Your task to perform on an android device: Go to CNN.com Image 0: 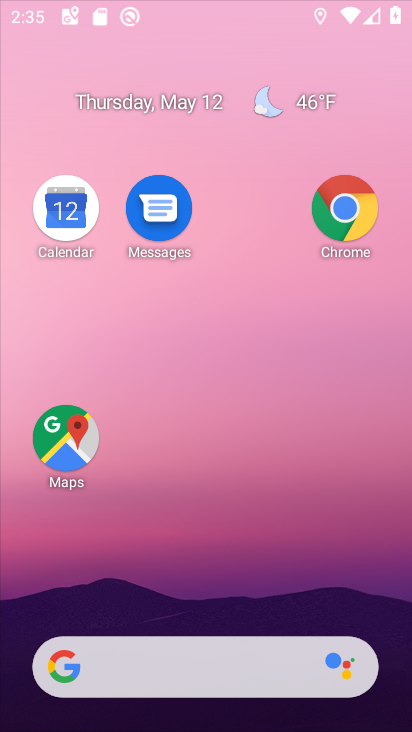
Step 0: click (323, 158)
Your task to perform on an android device: Go to CNN.com Image 1: 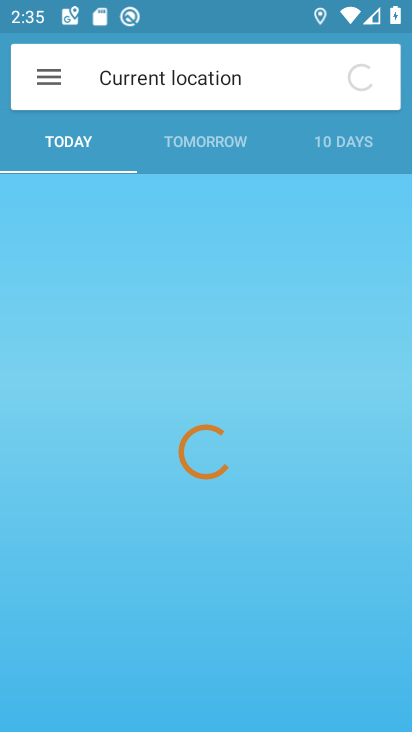
Step 1: drag from (225, 595) to (283, 145)
Your task to perform on an android device: Go to CNN.com Image 2: 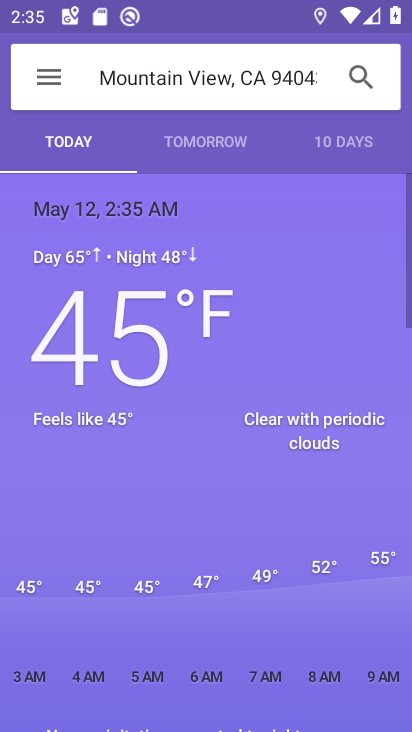
Step 2: press home button
Your task to perform on an android device: Go to CNN.com Image 3: 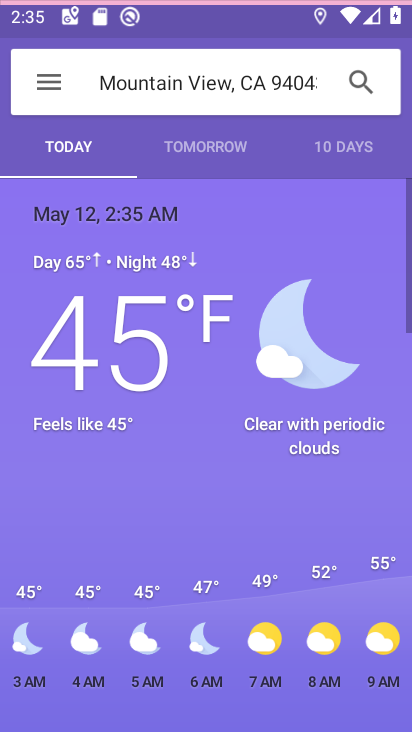
Step 3: drag from (220, 350) to (251, 226)
Your task to perform on an android device: Go to CNN.com Image 4: 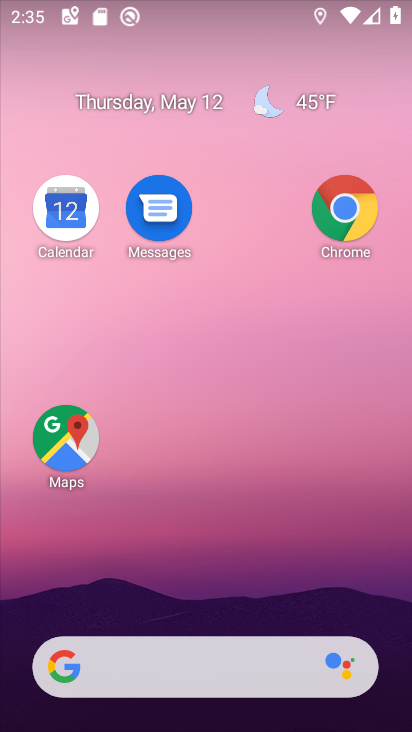
Step 4: drag from (209, 571) to (300, 70)
Your task to perform on an android device: Go to CNN.com Image 5: 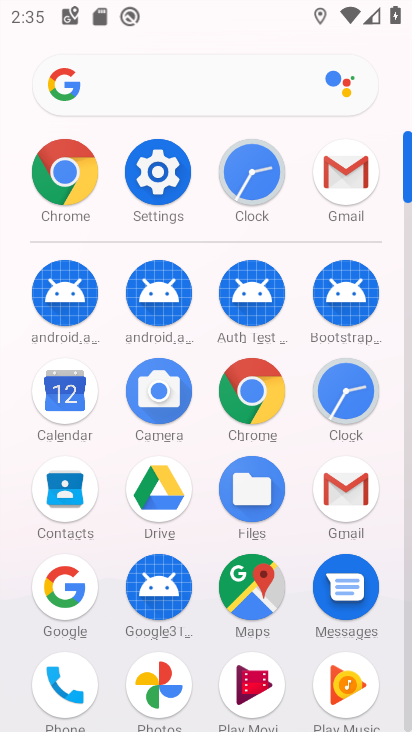
Step 5: click (206, 92)
Your task to perform on an android device: Go to CNN.com Image 6: 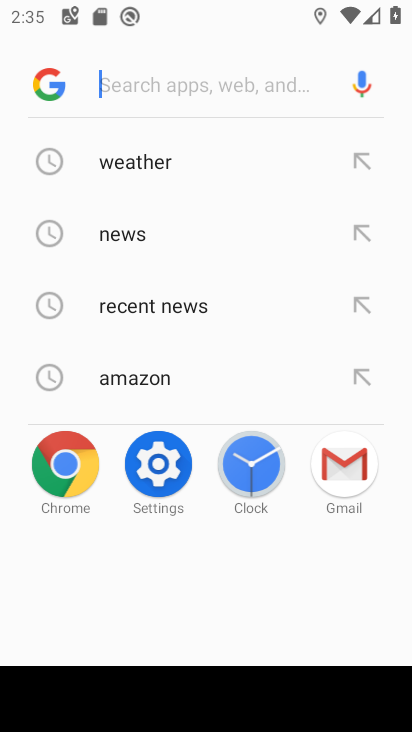
Step 6: type "cnn"
Your task to perform on an android device: Go to CNN.com Image 7: 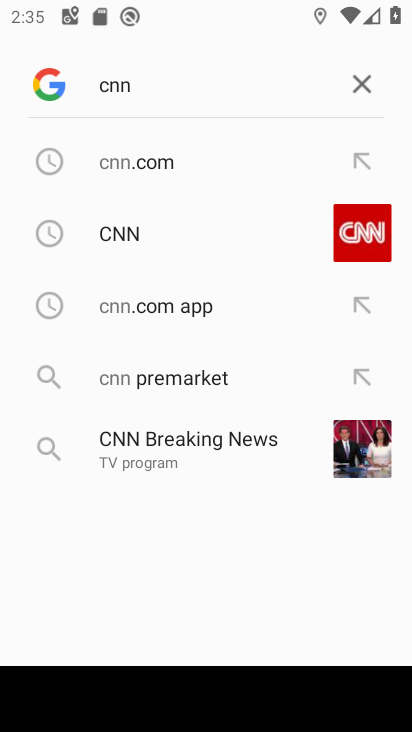
Step 7: click (145, 171)
Your task to perform on an android device: Go to CNN.com Image 8: 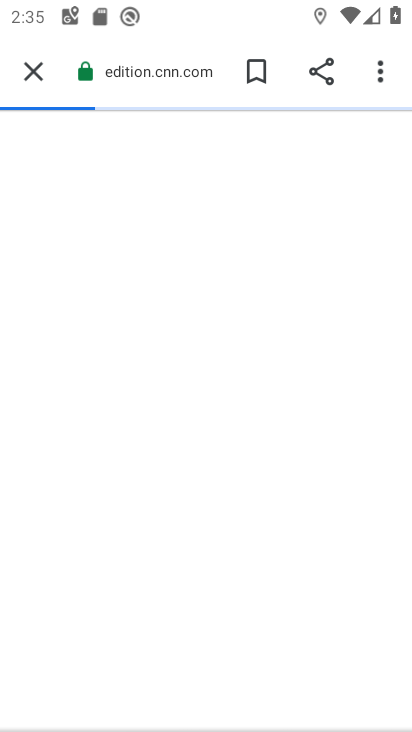
Step 8: task complete